Your task to perform on an android device: Show me recent news Image 0: 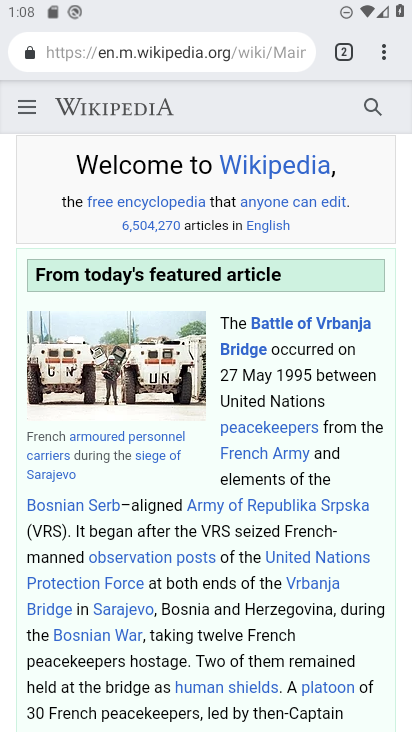
Step 0: press home button
Your task to perform on an android device: Show me recent news Image 1: 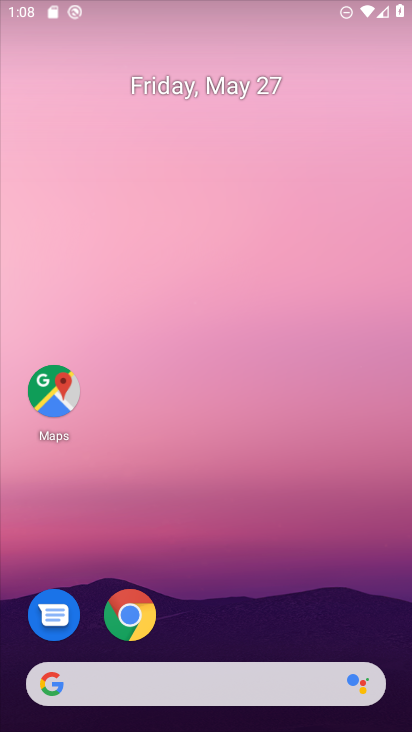
Step 1: drag from (185, 535) to (255, 147)
Your task to perform on an android device: Show me recent news Image 2: 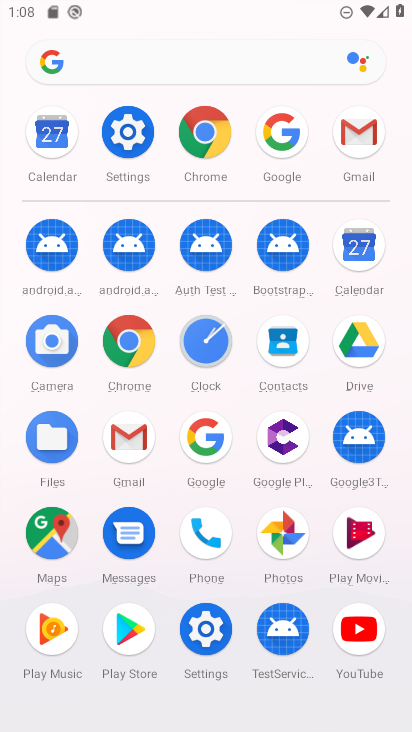
Step 2: click (217, 453)
Your task to perform on an android device: Show me recent news Image 3: 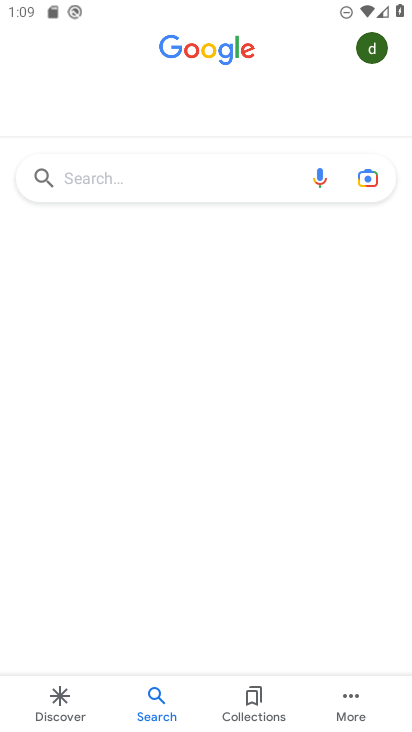
Step 3: click (52, 691)
Your task to perform on an android device: Show me recent news Image 4: 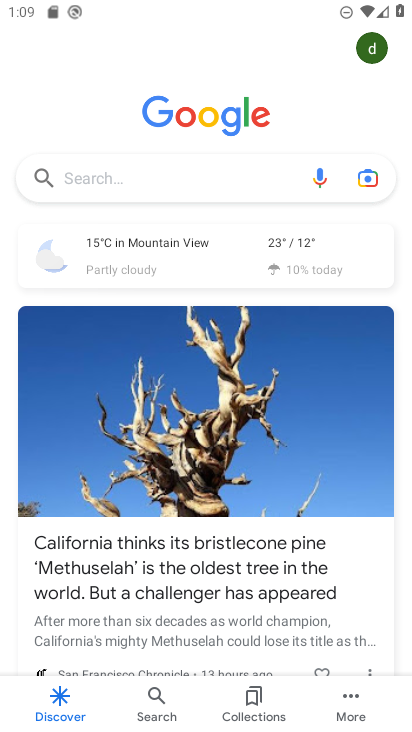
Step 4: task complete